Your task to perform on an android device: Show me the alarms in the clock app Image 0: 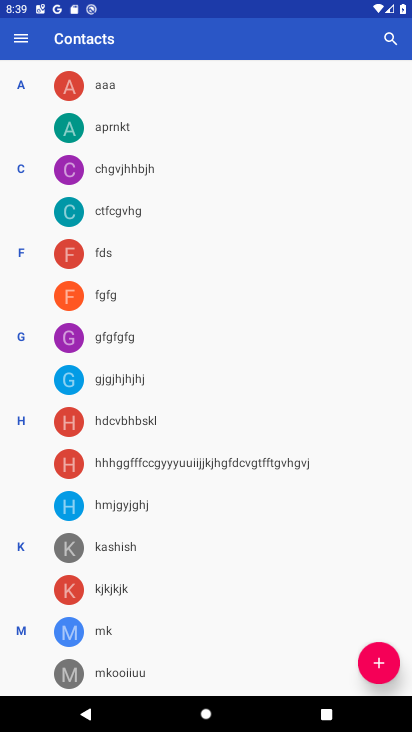
Step 0: press home button
Your task to perform on an android device: Show me the alarms in the clock app Image 1: 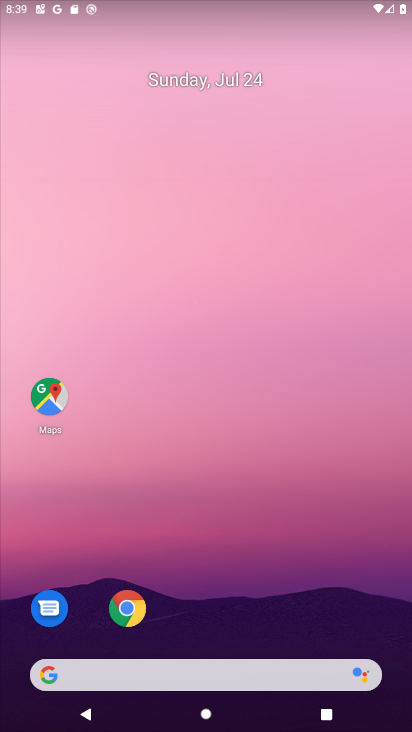
Step 1: drag from (240, 630) to (260, 58)
Your task to perform on an android device: Show me the alarms in the clock app Image 2: 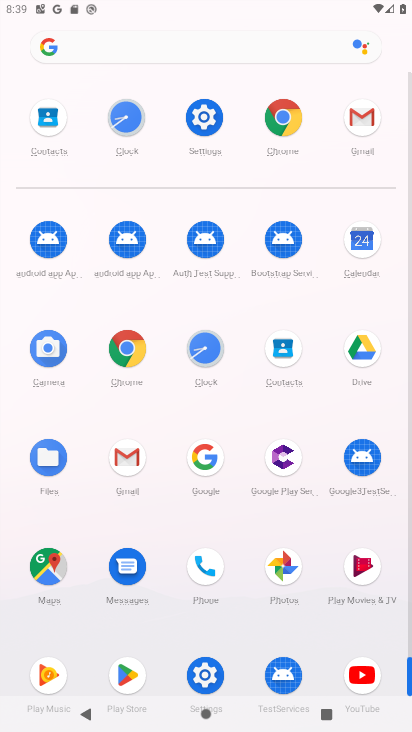
Step 2: click (154, 124)
Your task to perform on an android device: Show me the alarms in the clock app Image 3: 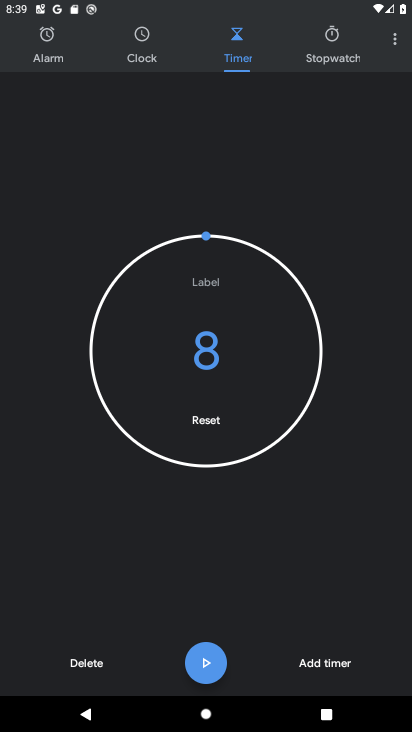
Step 3: click (42, 42)
Your task to perform on an android device: Show me the alarms in the clock app Image 4: 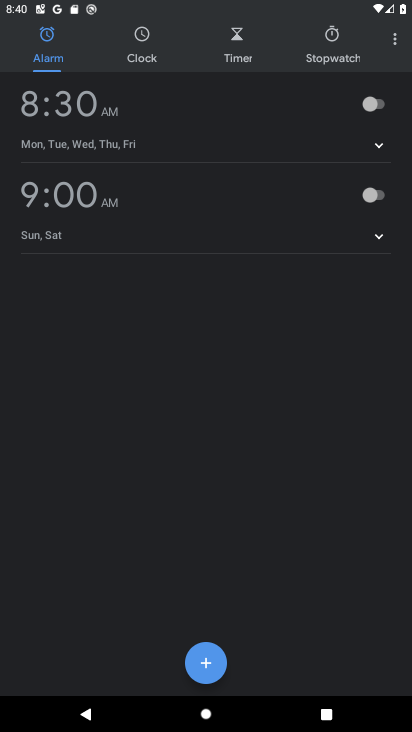
Step 4: task complete